Your task to perform on an android device: Add "jbl charge 4" to the cart on ebay, then select checkout. Image 0: 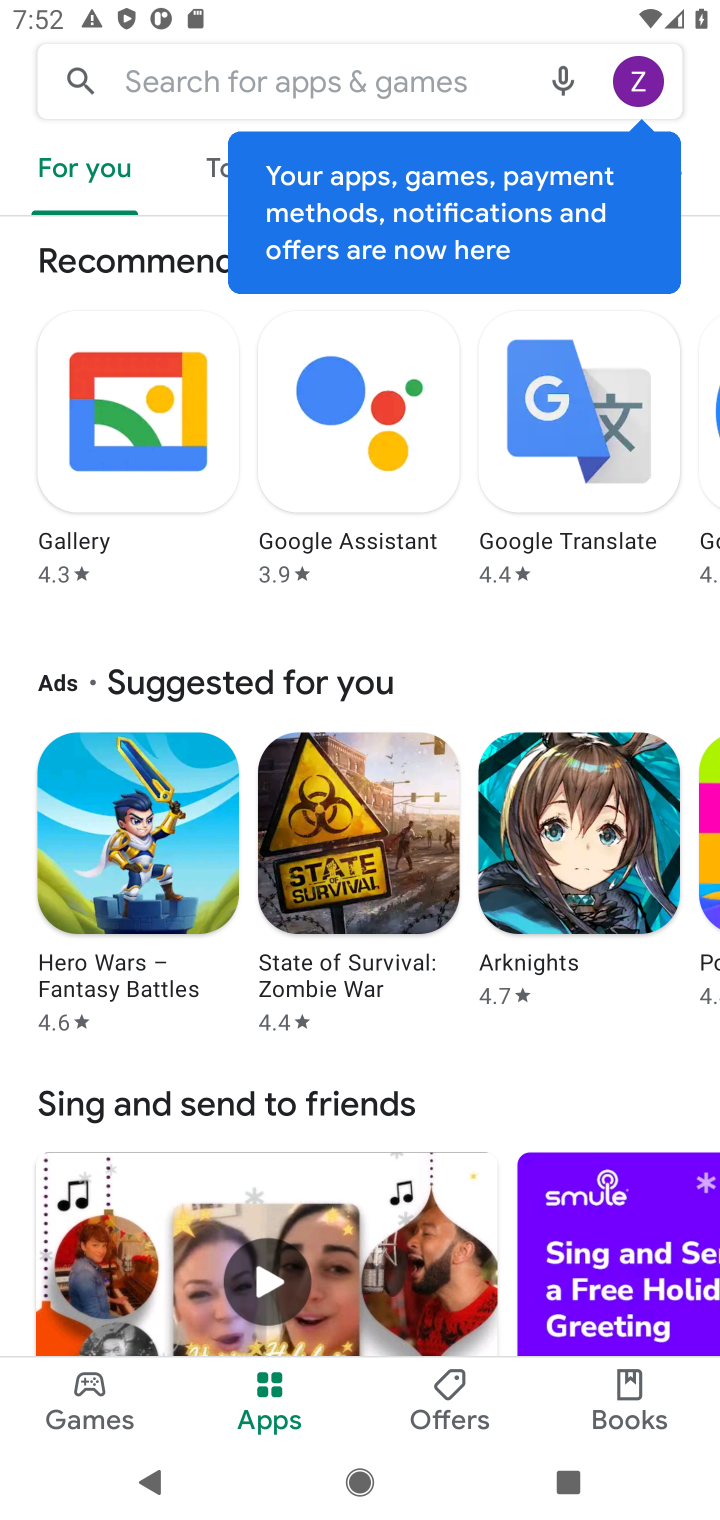
Step 0: press home button
Your task to perform on an android device: Add "jbl charge 4" to the cart on ebay, then select checkout. Image 1: 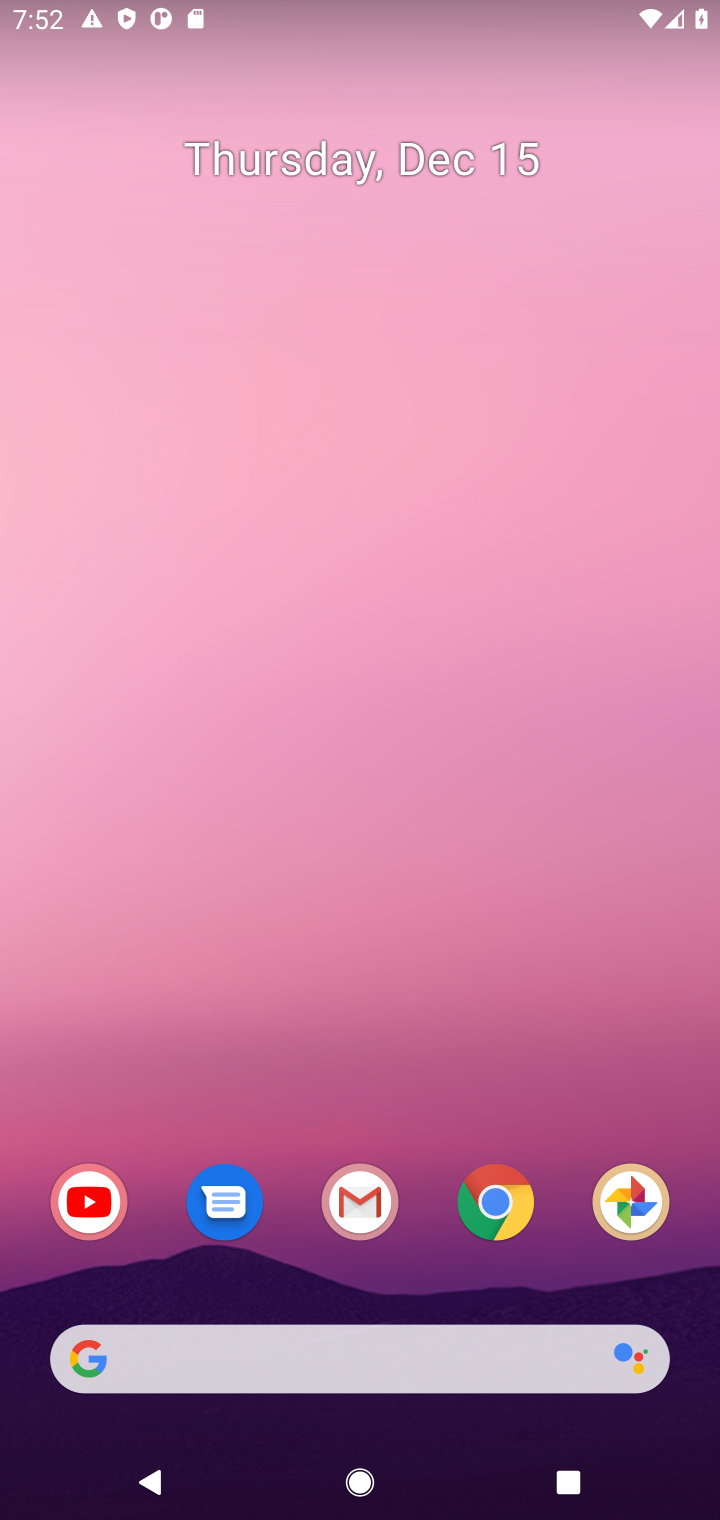
Step 1: click (506, 1202)
Your task to perform on an android device: Add "jbl charge 4" to the cart on ebay, then select checkout. Image 2: 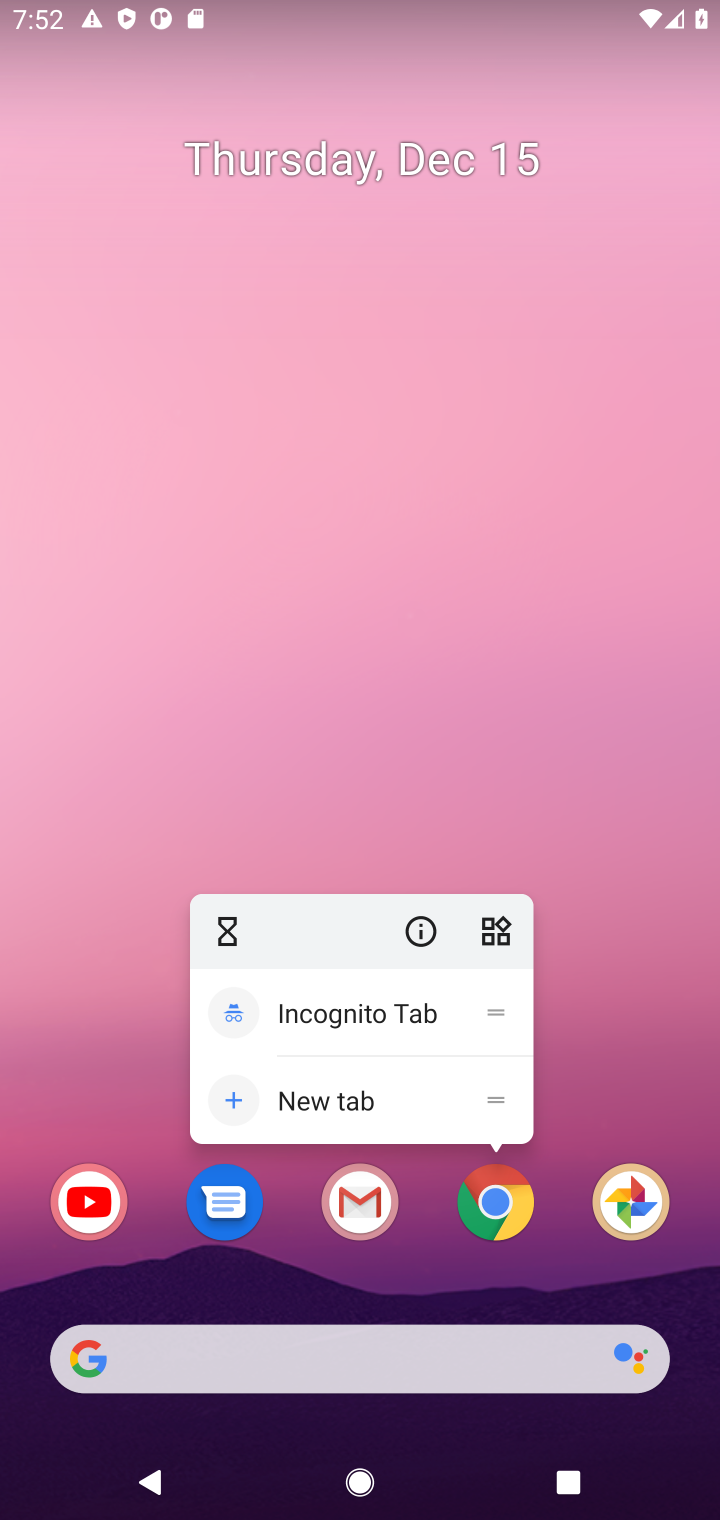
Step 2: click (506, 1202)
Your task to perform on an android device: Add "jbl charge 4" to the cart on ebay, then select checkout. Image 3: 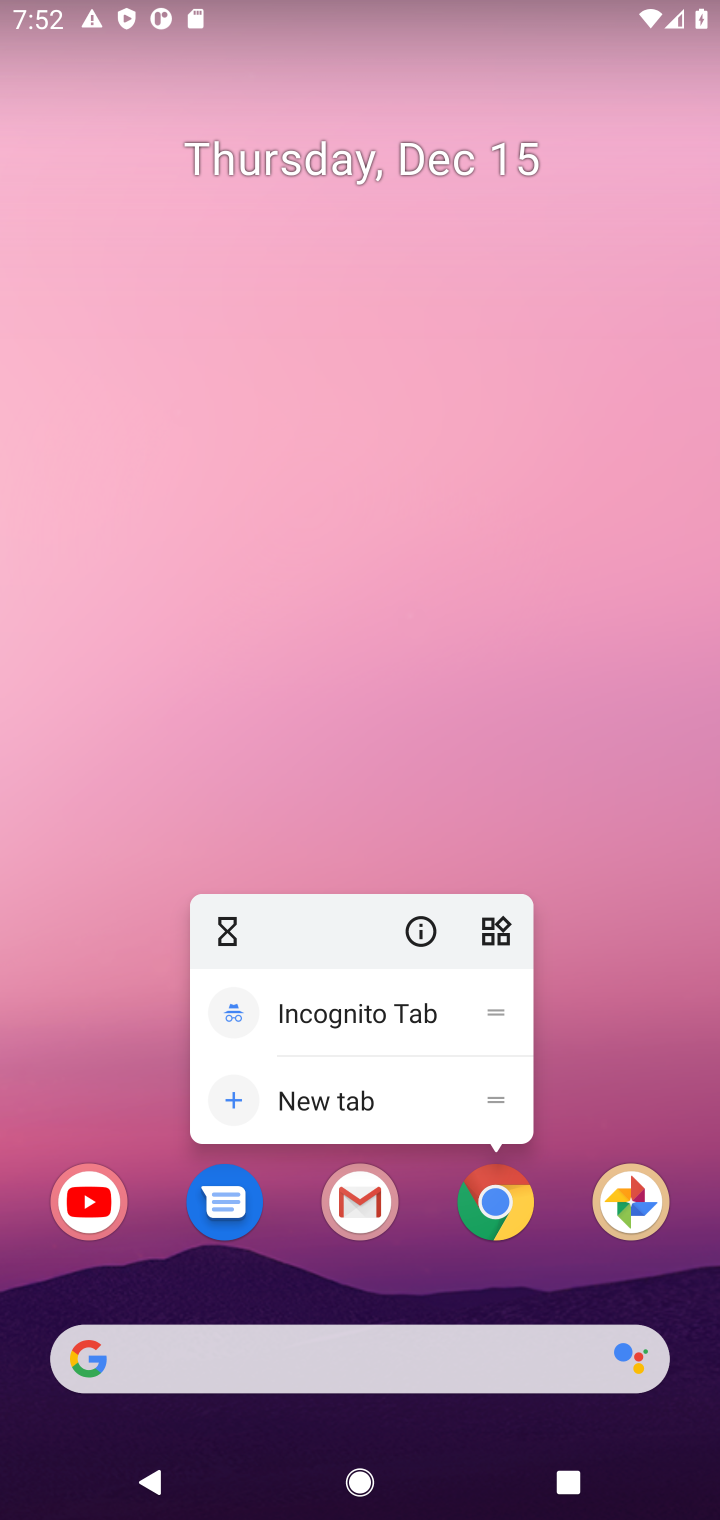
Step 3: click (496, 1217)
Your task to perform on an android device: Add "jbl charge 4" to the cart on ebay, then select checkout. Image 4: 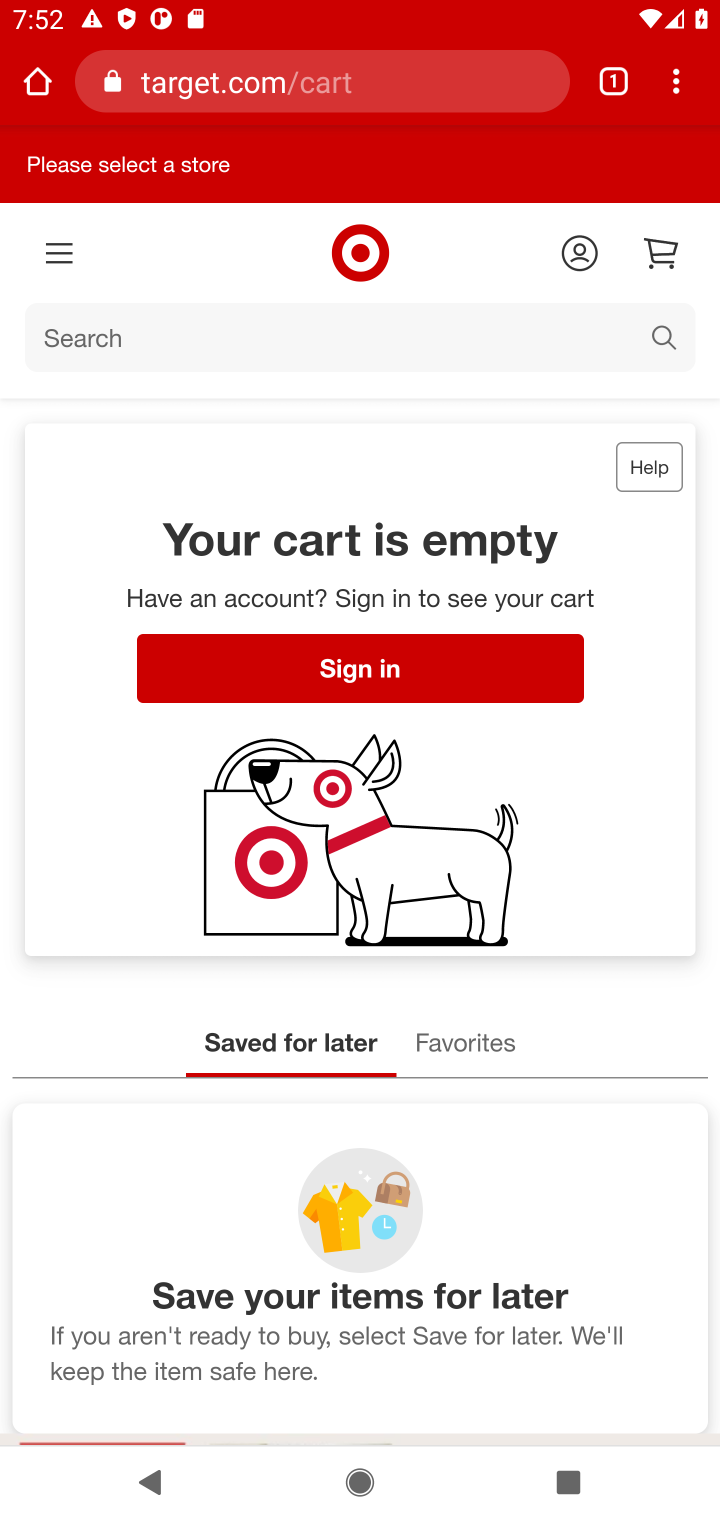
Step 4: click (265, 95)
Your task to perform on an android device: Add "jbl charge 4" to the cart on ebay, then select checkout. Image 5: 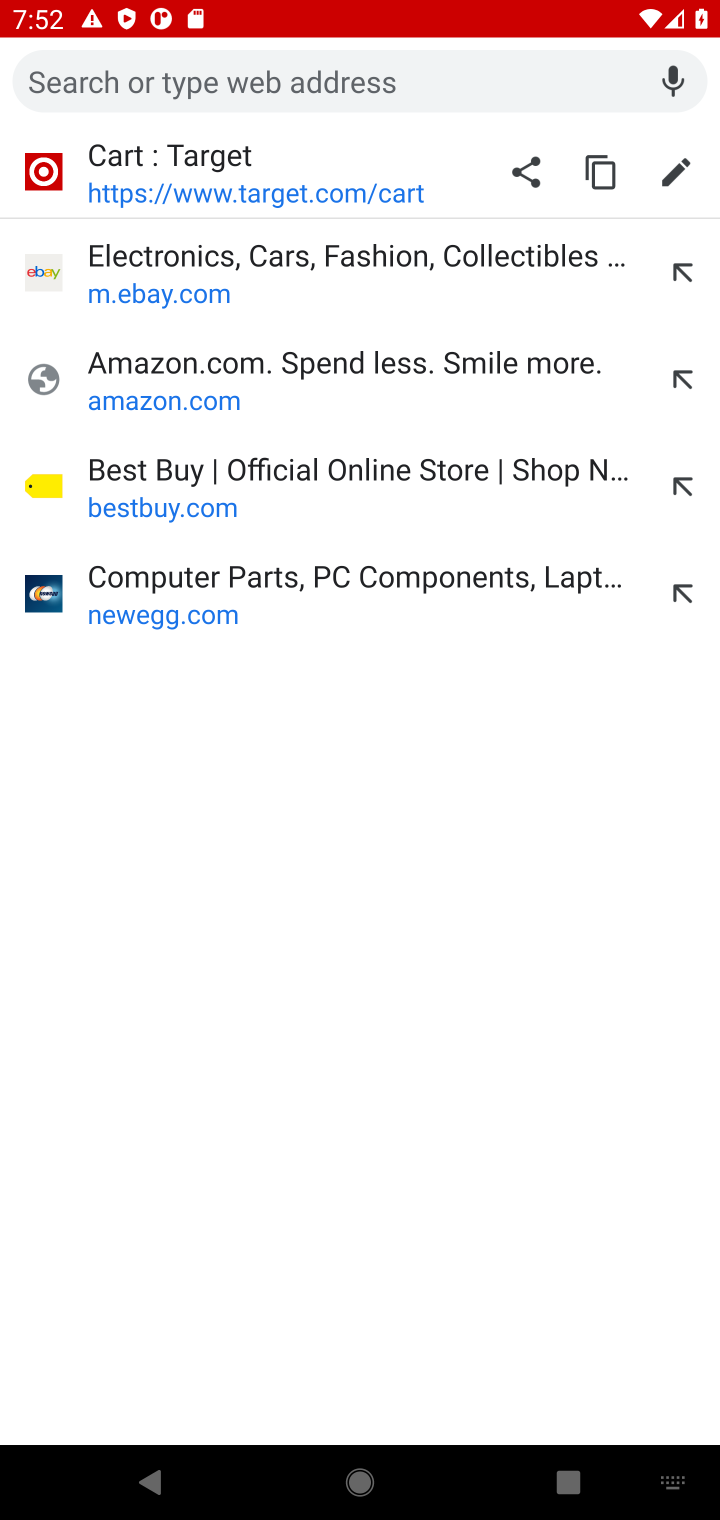
Step 5: click (156, 292)
Your task to perform on an android device: Add "jbl charge 4" to the cart on ebay, then select checkout. Image 6: 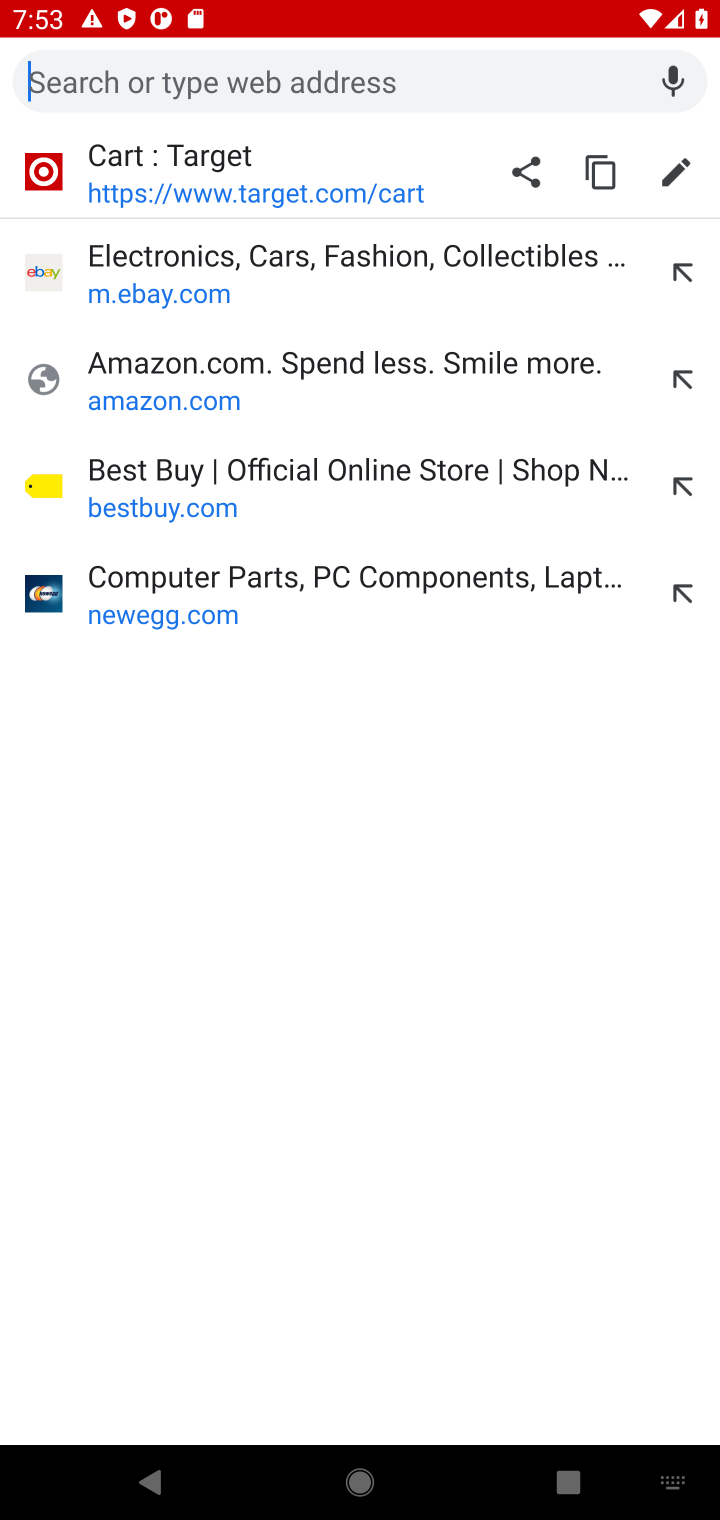
Step 6: click (182, 289)
Your task to perform on an android device: Add "jbl charge 4" to the cart on ebay, then select checkout. Image 7: 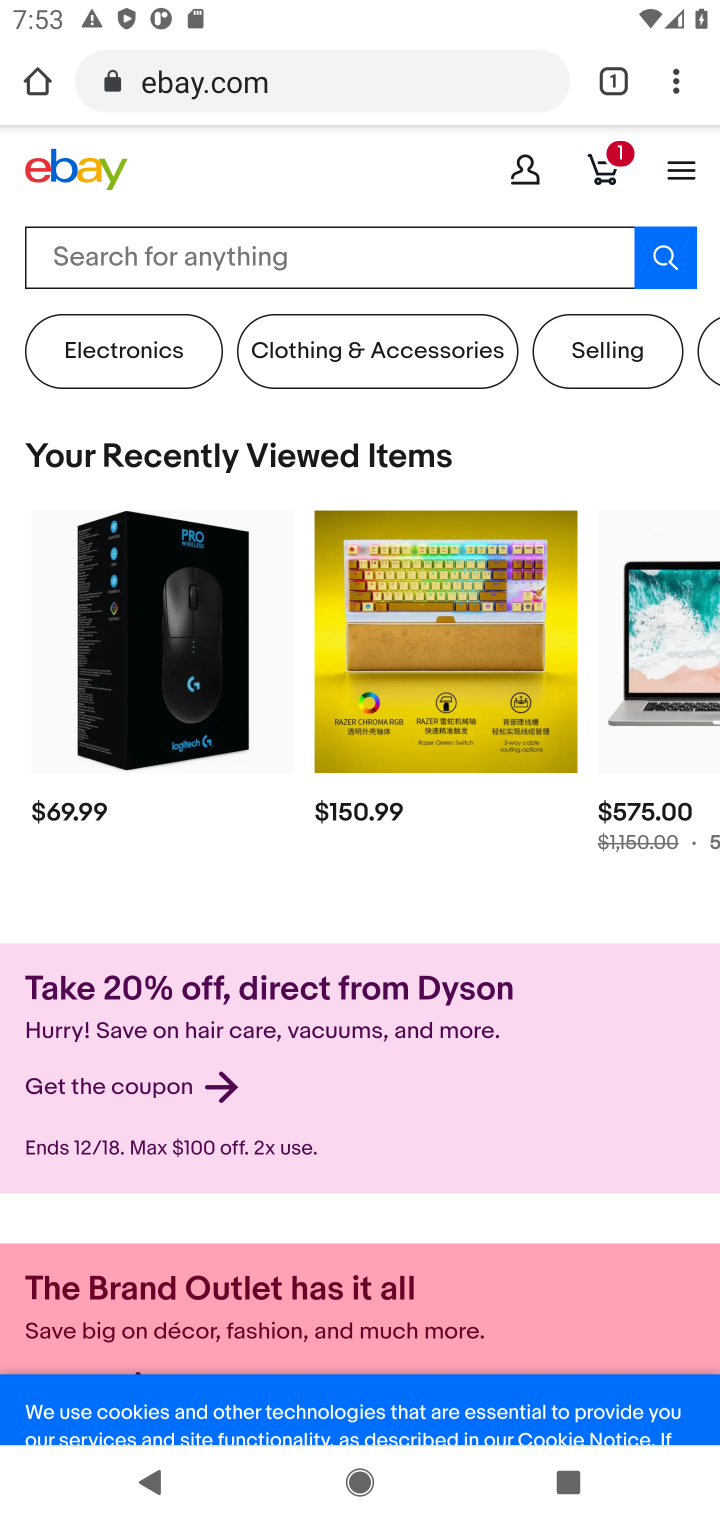
Step 7: click (192, 267)
Your task to perform on an android device: Add "jbl charge 4" to the cart on ebay, then select checkout. Image 8: 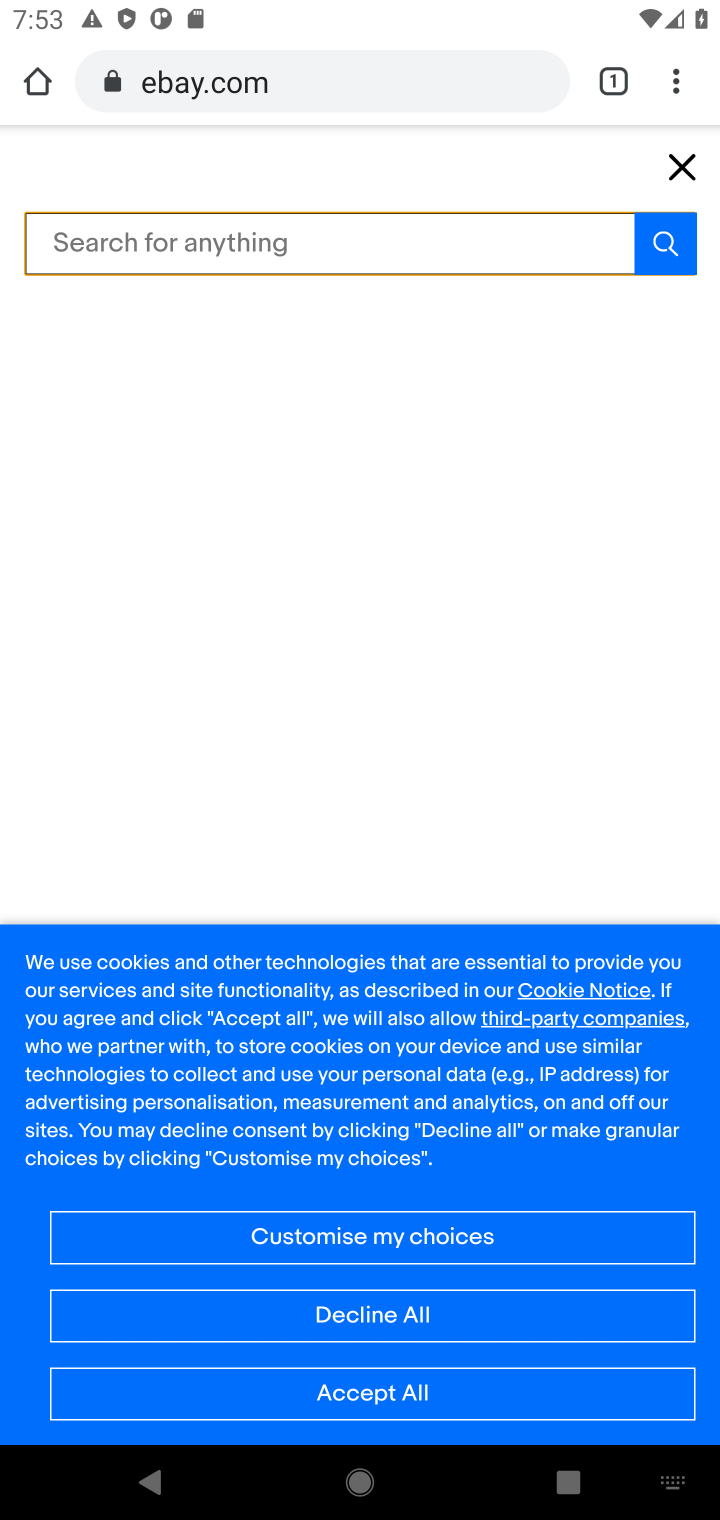
Step 8: type "jbl charge 4"
Your task to perform on an android device: Add "jbl charge 4" to the cart on ebay, then select checkout. Image 9: 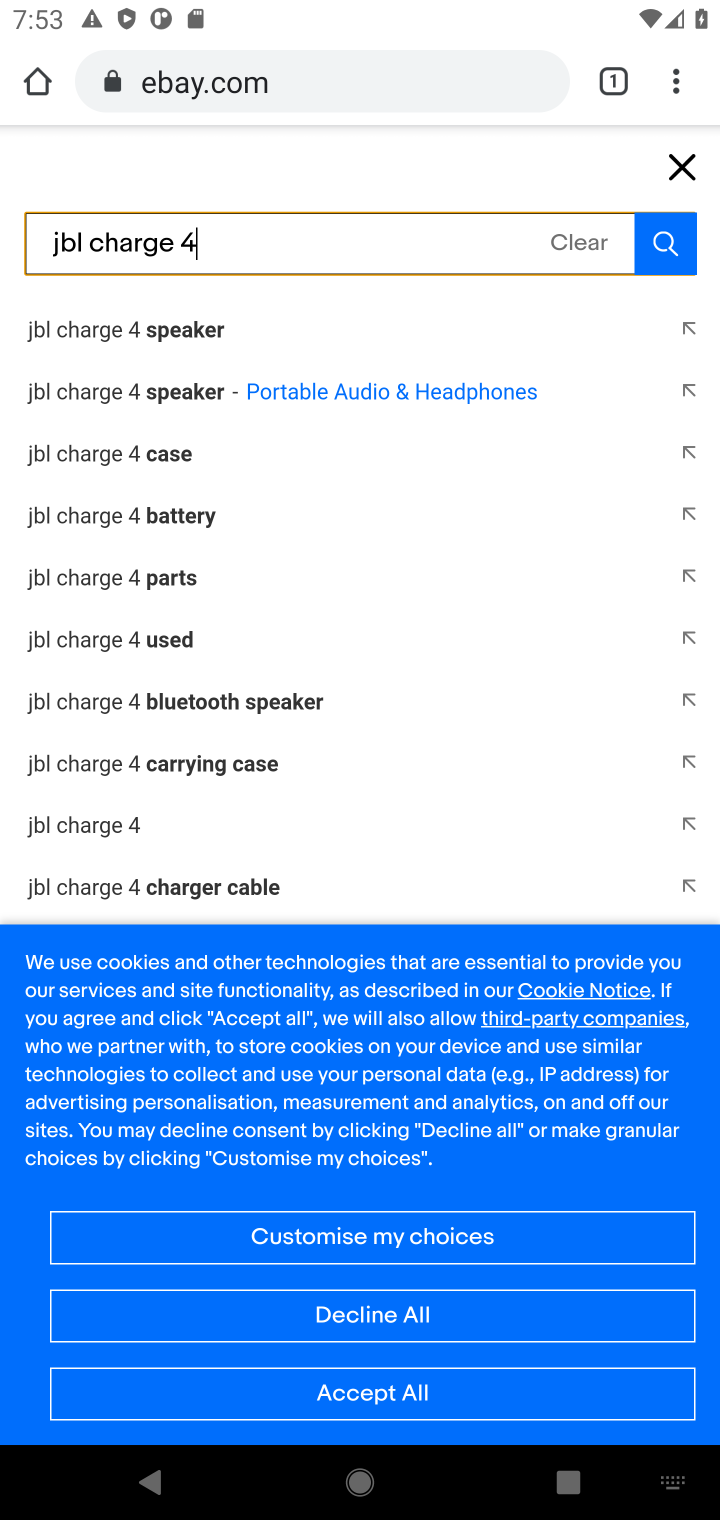
Step 9: click (74, 827)
Your task to perform on an android device: Add "jbl charge 4" to the cart on ebay, then select checkout. Image 10: 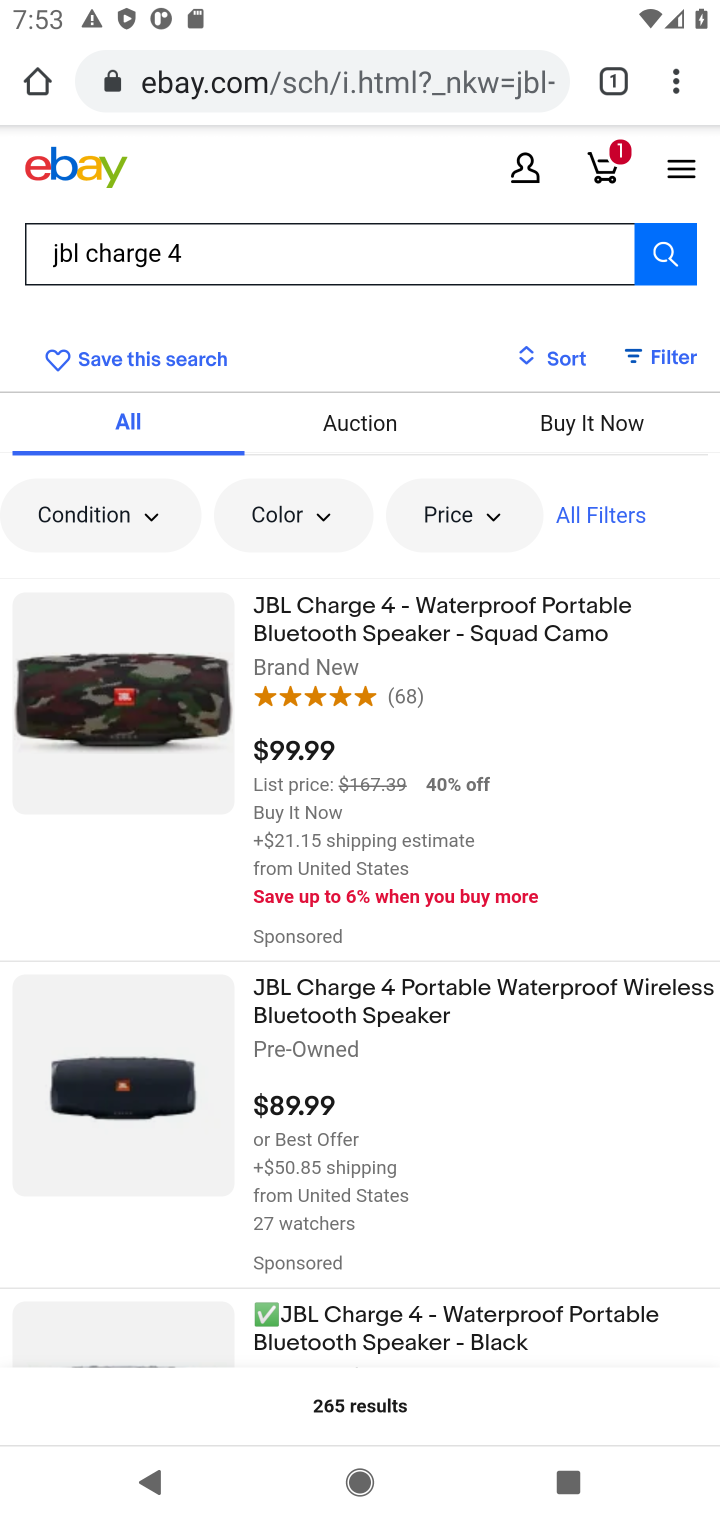
Step 10: click (449, 644)
Your task to perform on an android device: Add "jbl charge 4" to the cart on ebay, then select checkout. Image 11: 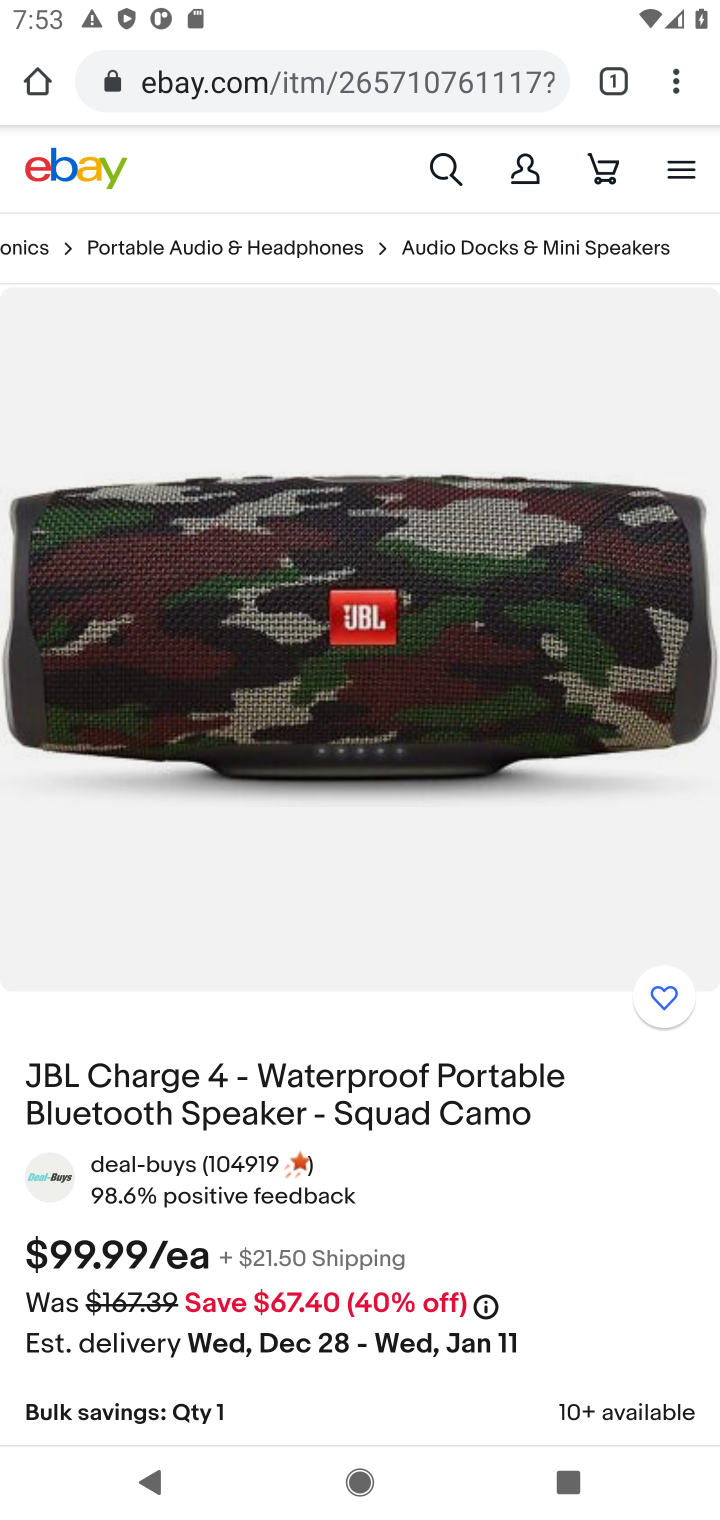
Step 11: drag from (363, 1181) to (414, 503)
Your task to perform on an android device: Add "jbl charge 4" to the cart on ebay, then select checkout. Image 12: 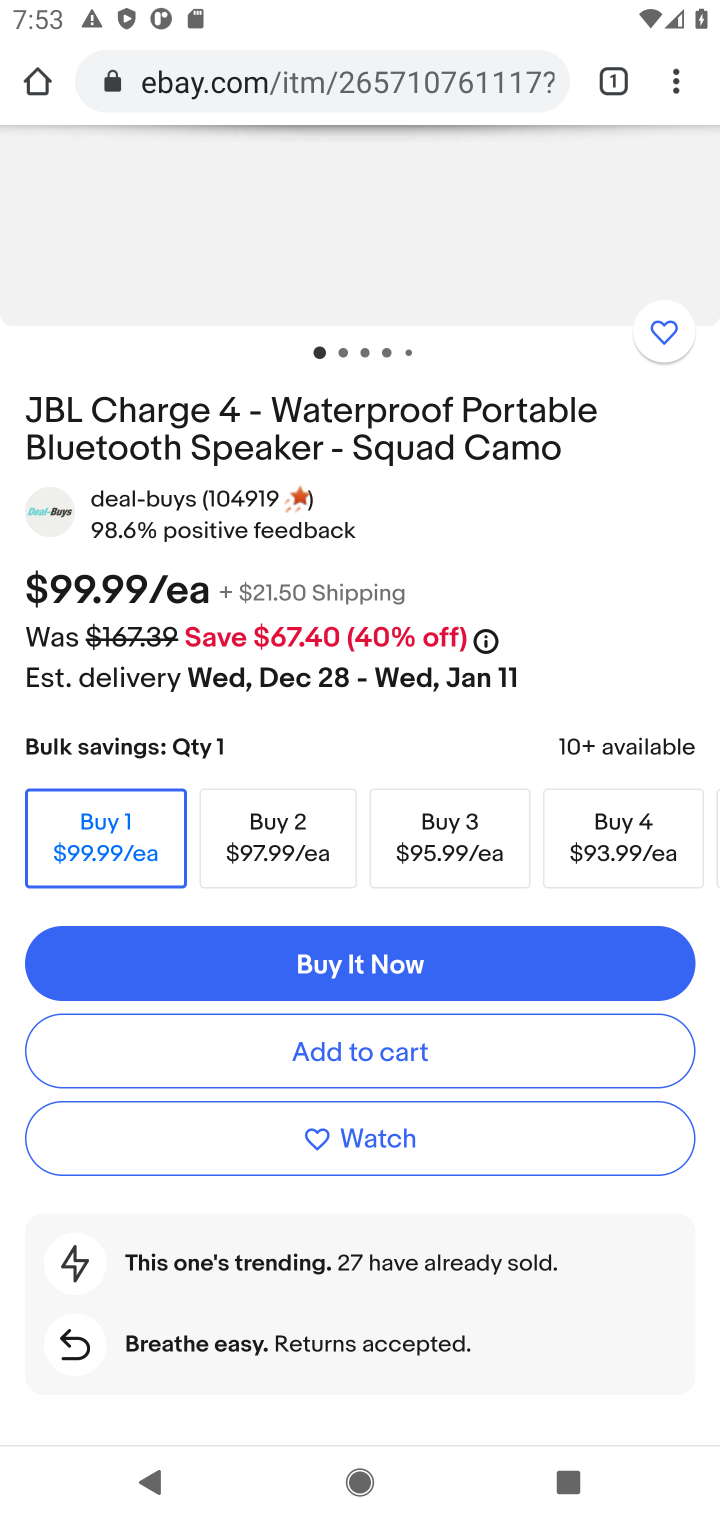
Step 12: click (346, 1049)
Your task to perform on an android device: Add "jbl charge 4" to the cart on ebay, then select checkout. Image 13: 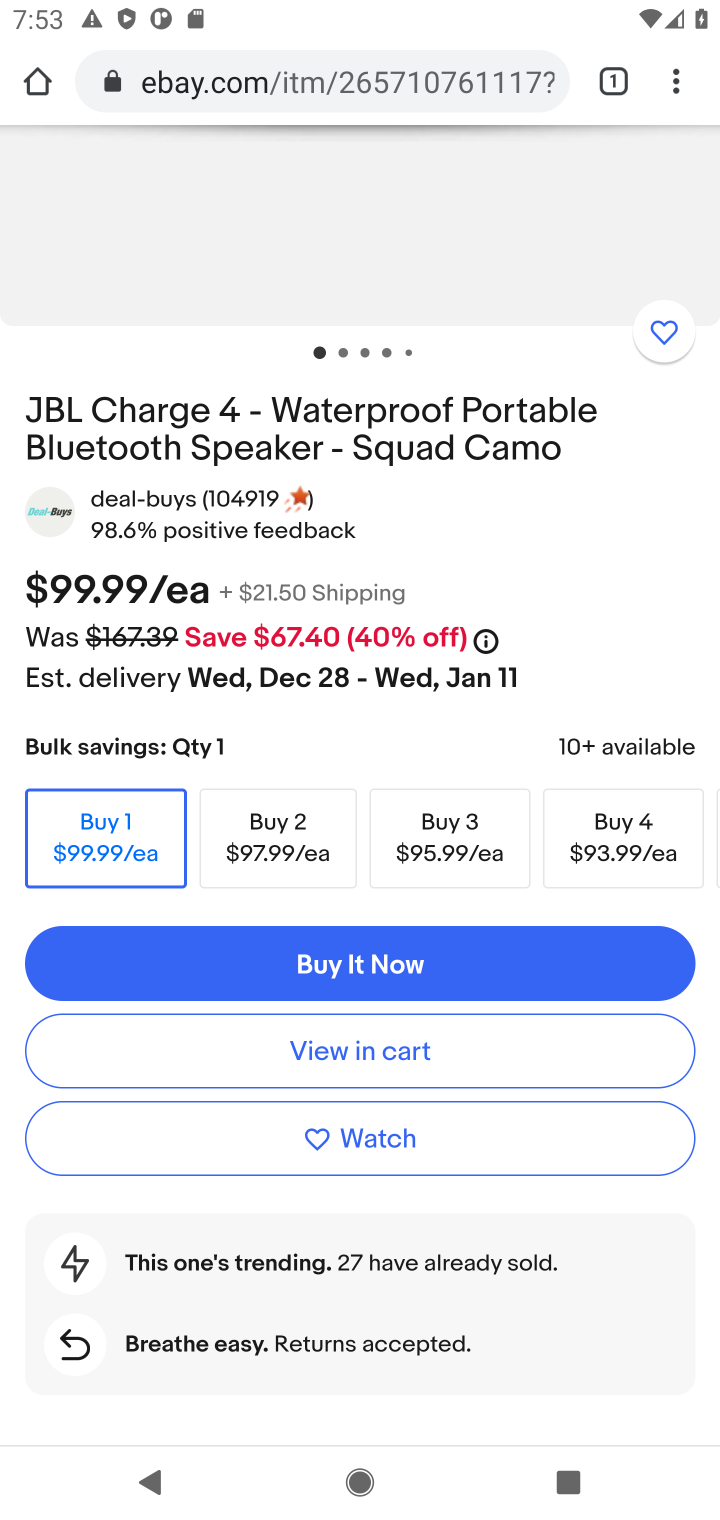
Step 13: click (346, 1049)
Your task to perform on an android device: Add "jbl charge 4" to the cart on ebay, then select checkout. Image 14: 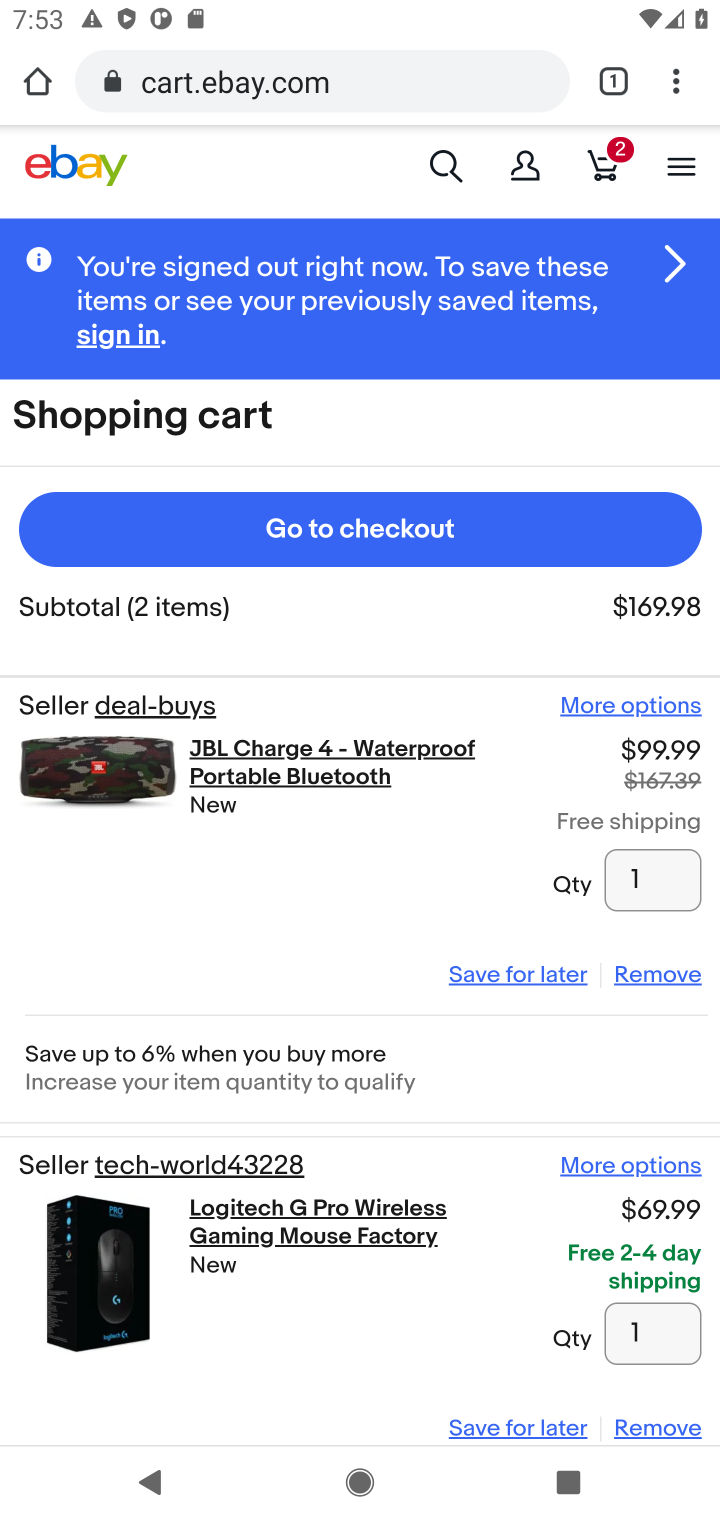
Step 14: click (348, 543)
Your task to perform on an android device: Add "jbl charge 4" to the cart on ebay, then select checkout. Image 15: 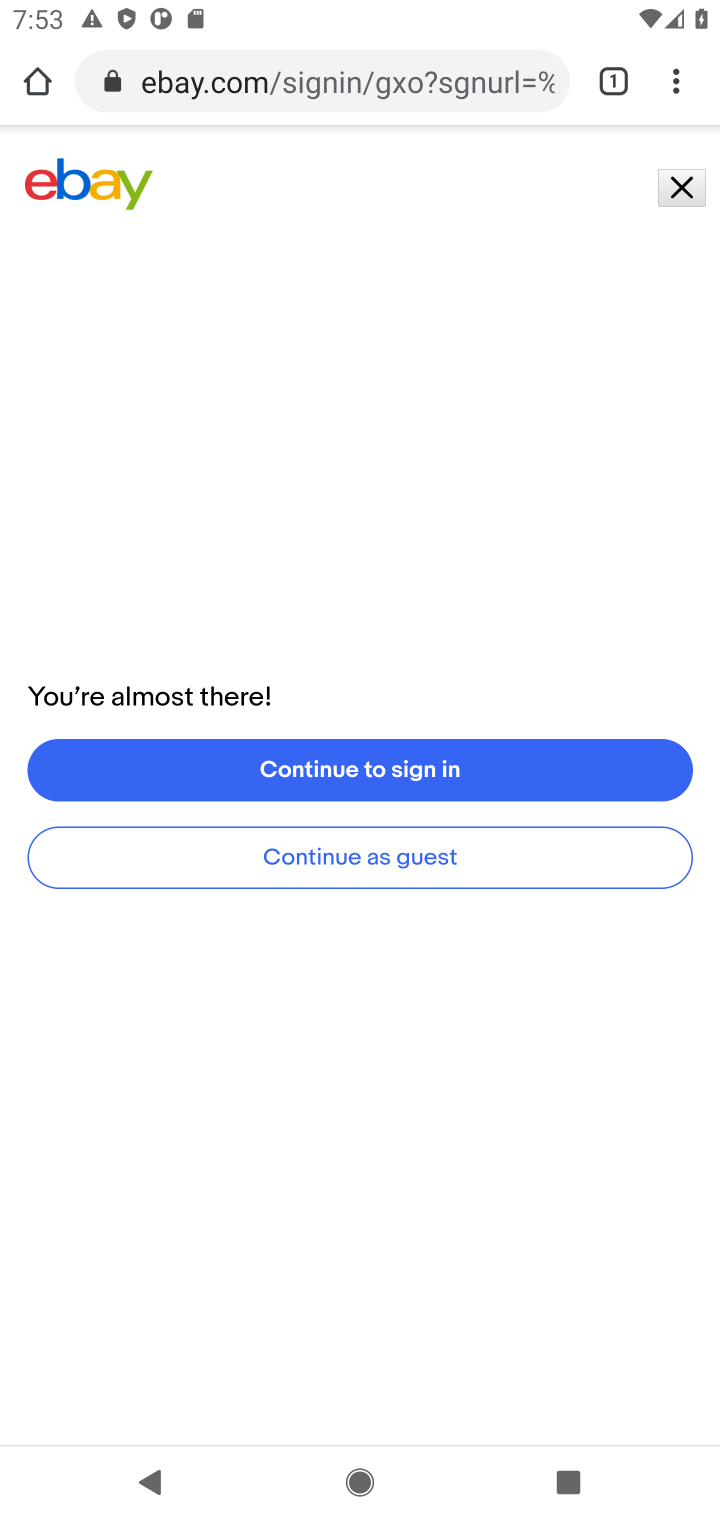
Step 15: task complete